Your task to perform on an android device: open a bookmark in the chrome app Image 0: 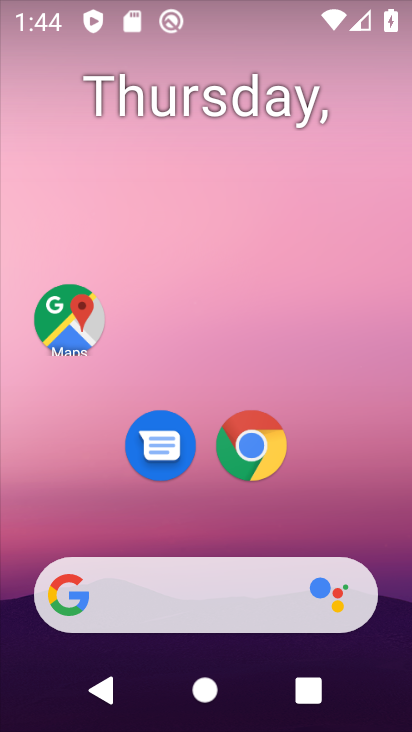
Step 0: click (226, 460)
Your task to perform on an android device: open a bookmark in the chrome app Image 1: 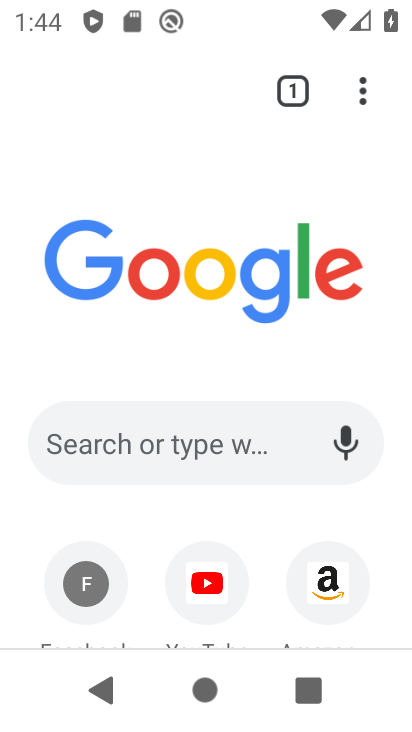
Step 1: task complete